Your task to perform on an android device: turn off javascript in the chrome app Image 0: 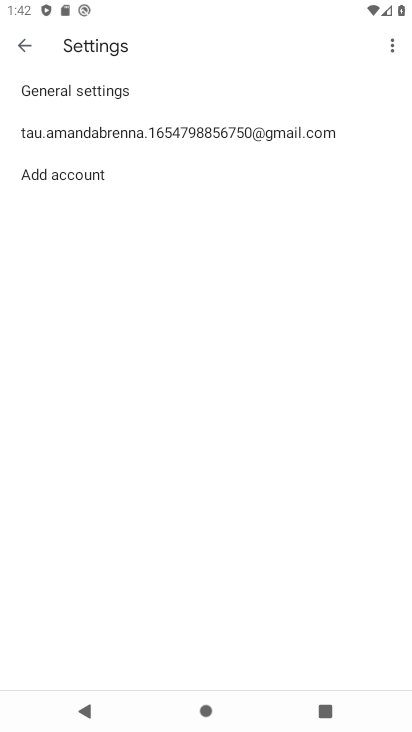
Step 0: press home button
Your task to perform on an android device: turn off javascript in the chrome app Image 1: 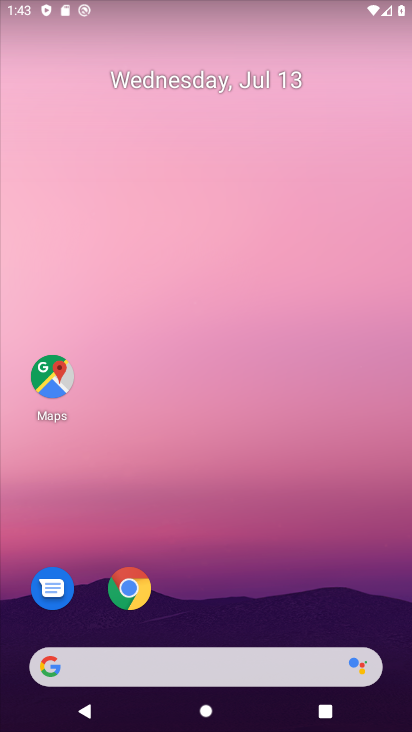
Step 1: drag from (234, 616) to (211, 88)
Your task to perform on an android device: turn off javascript in the chrome app Image 2: 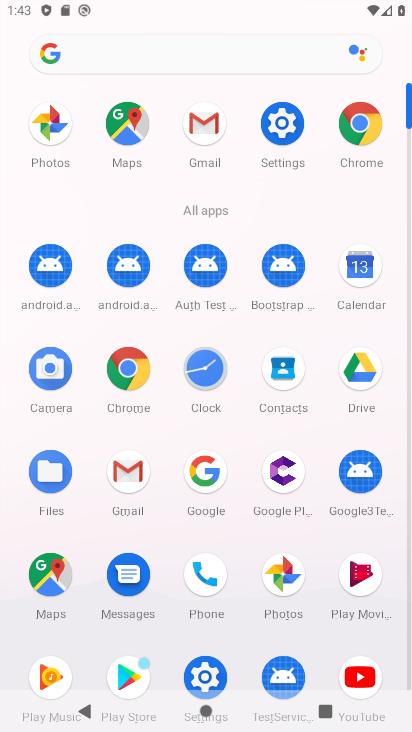
Step 2: click (371, 123)
Your task to perform on an android device: turn off javascript in the chrome app Image 3: 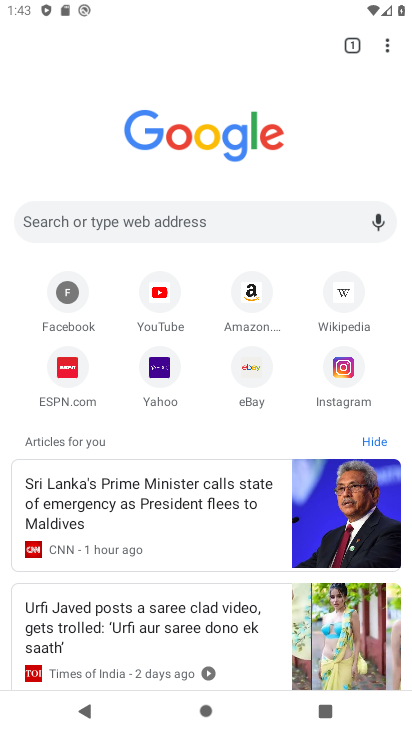
Step 3: drag from (388, 39) to (243, 380)
Your task to perform on an android device: turn off javascript in the chrome app Image 4: 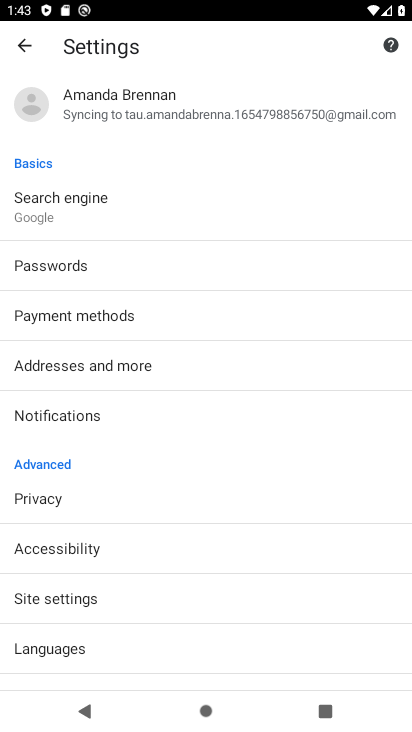
Step 4: click (95, 613)
Your task to perform on an android device: turn off javascript in the chrome app Image 5: 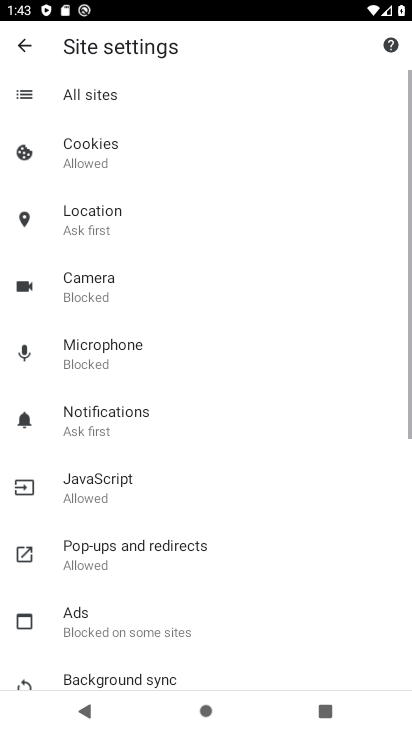
Step 5: click (120, 507)
Your task to perform on an android device: turn off javascript in the chrome app Image 6: 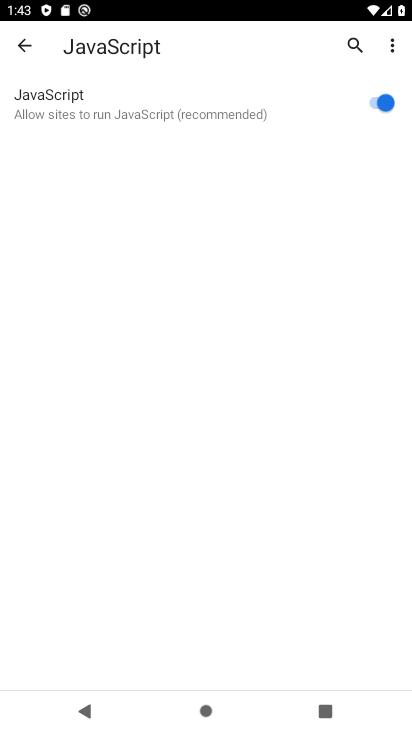
Step 6: click (382, 112)
Your task to perform on an android device: turn off javascript in the chrome app Image 7: 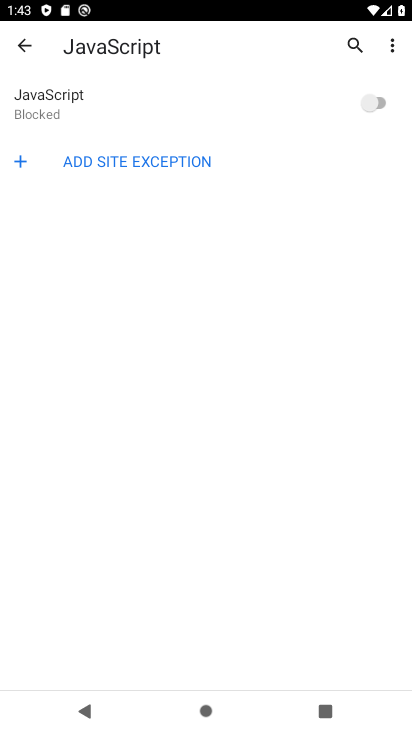
Step 7: task complete